Your task to perform on an android device: turn on wifi Image 0: 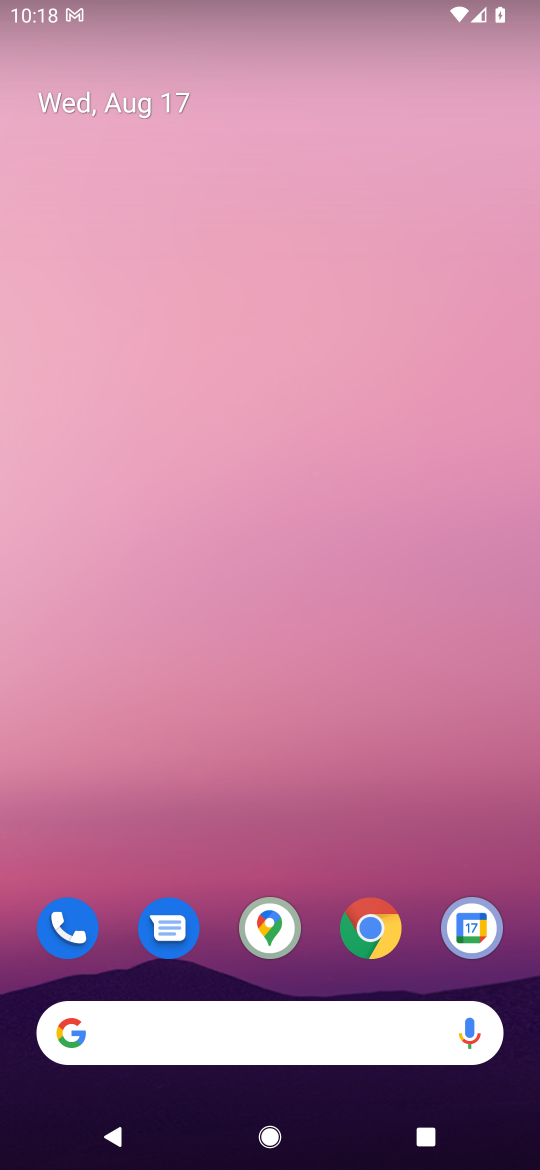
Step 0: drag from (274, 9) to (380, 965)
Your task to perform on an android device: turn on wifi Image 1: 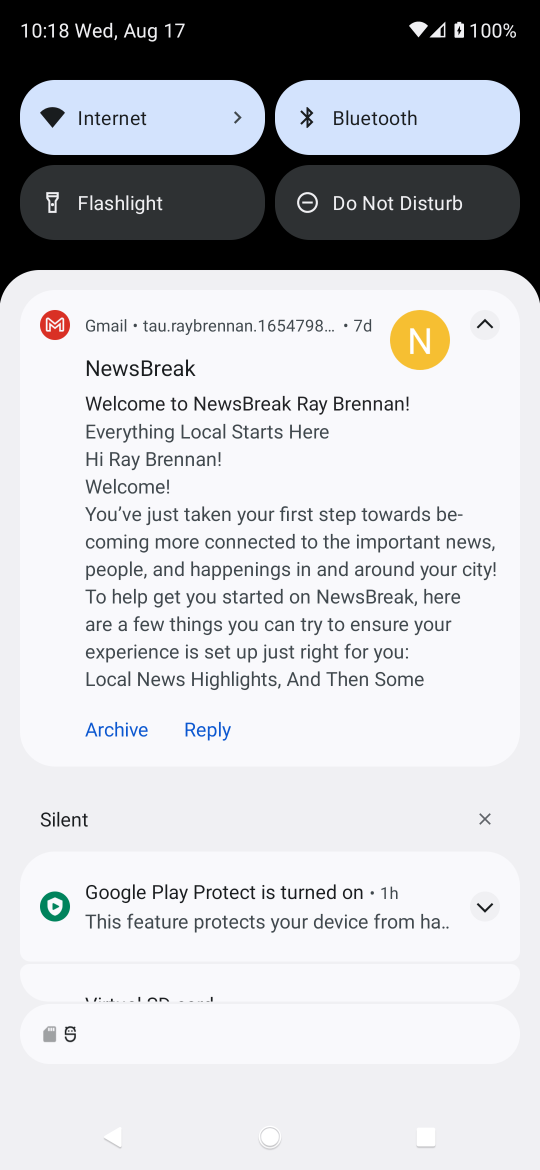
Step 1: click (195, 115)
Your task to perform on an android device: turn on wifi Image 2: 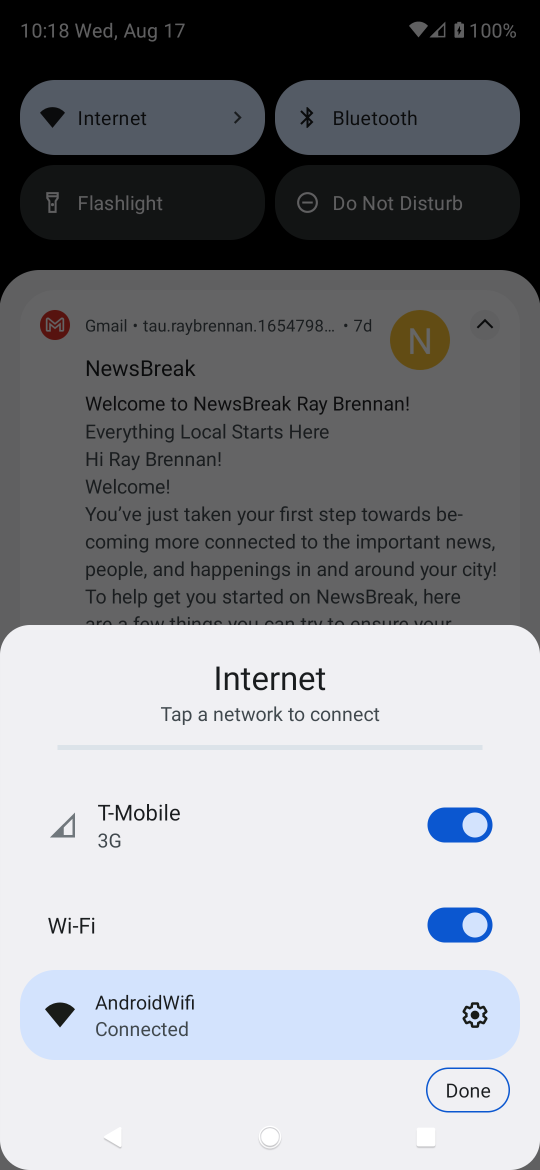
Step 2: task complete